Your task to perform on an android device: turn on bluetooth scan Image 0: 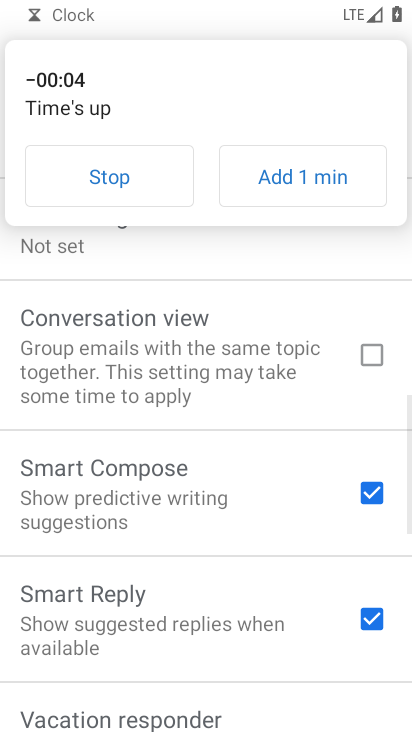
Step 0: press home button
Your task to perform on an android device: turn on bluetooth scan Image 1: 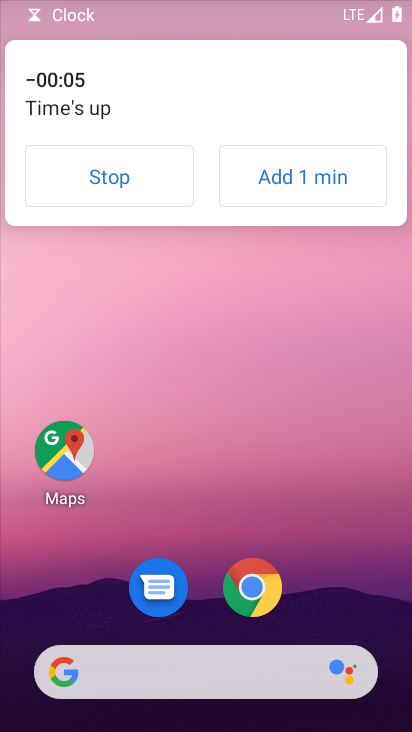
Step 1: drag from (220, 604) to (220, 247)
Your task to perform on an android device: turn on bluetooth scan Image 2: 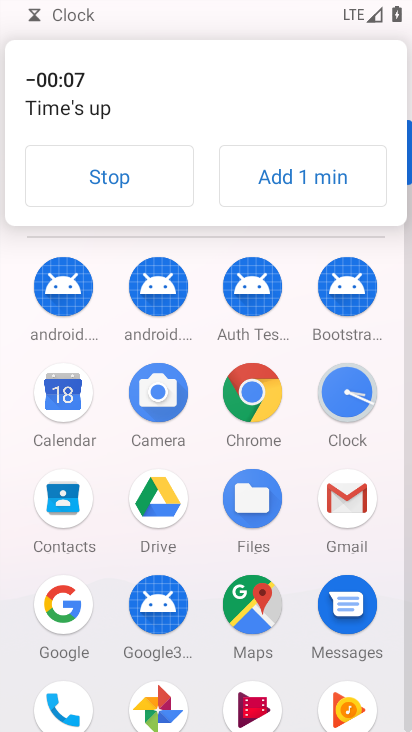
Step 2: click (159, 189)
Your task to perform on an android device: turn on bluetooth scan Image 3: 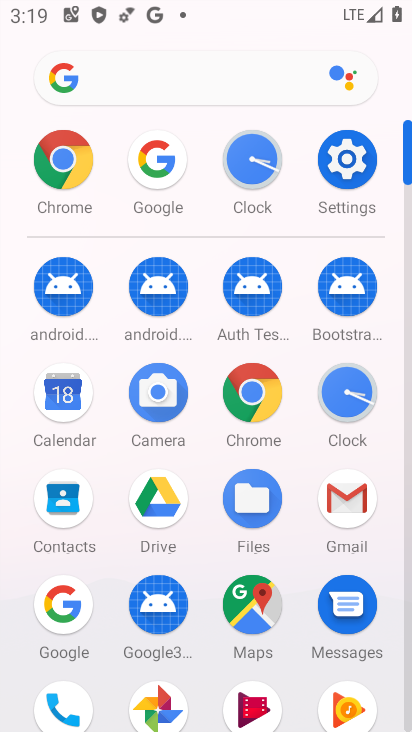
Step 3: click (362, 172)
Your task to perform on an android device: turn on bluetooth scan Image 4: 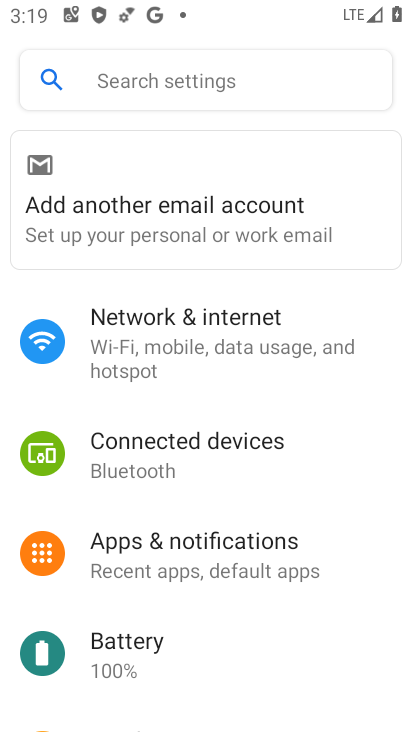
Step 4: click (214, 466)
Your task to perform on an android device: turn on bluetooth scan Image 5: 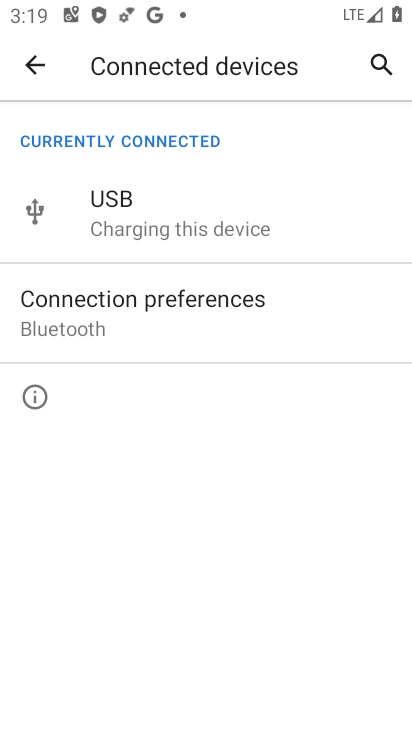
Step 5: click (229, 321)
Your task to perform on an android device: turn on bluetooth scan Image 6: 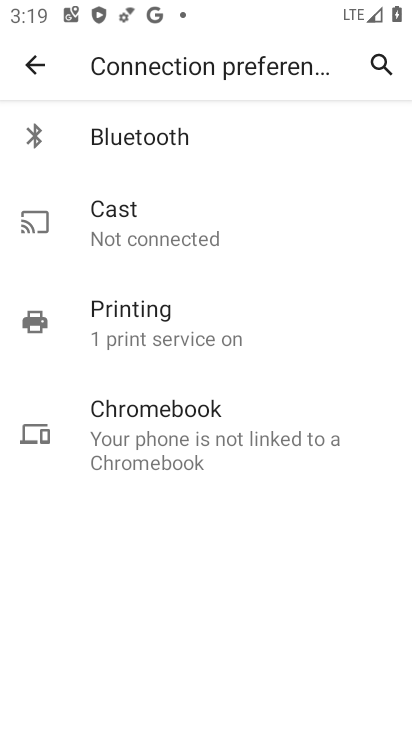
Step 6: click (243, 155)
Your task to perform on an android device: turn on bluetooth scan Image 7: 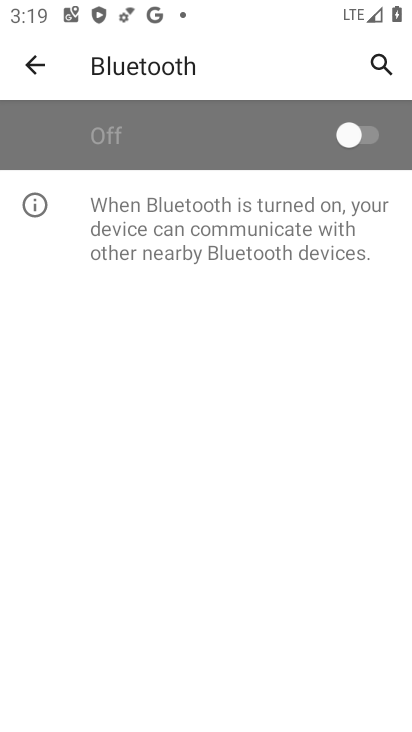
Step 7: click (280, 154)
Your task to perform on an android device: turn on bluetooth scan Image 8: 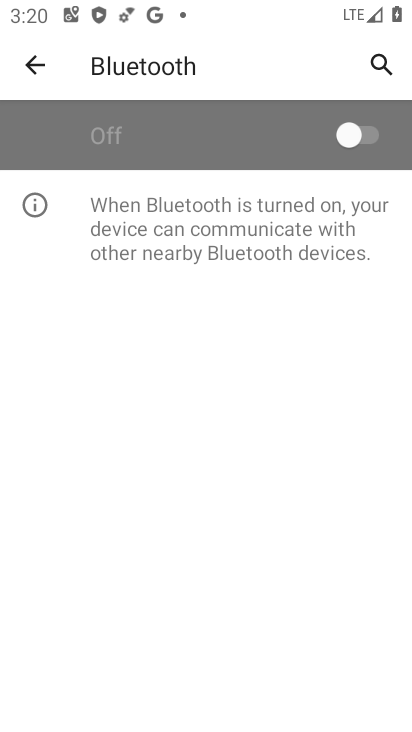
Step 8: task complete